Your task to perform on an android device: What is the recent news? Image 0: 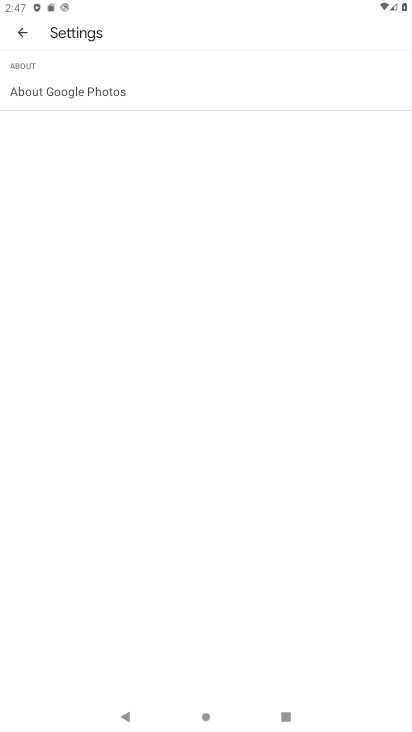
Step 0: press home button
Your task to perform on an android device: What is the recent news? Image 1: 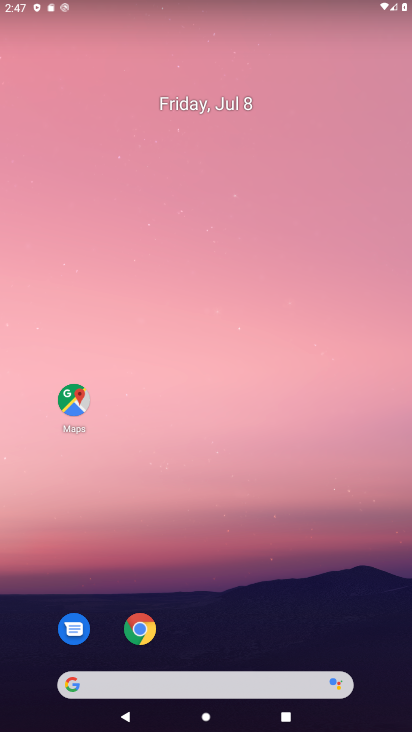
Step 1: click (135, 679)
Your task to perform on an android device: What is the recent news? Image 2: 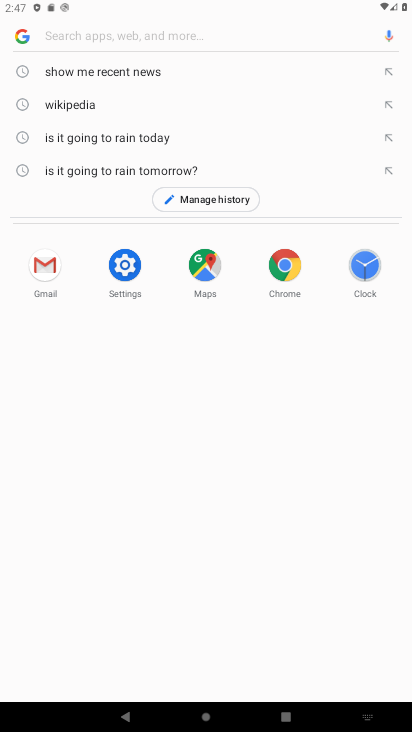
Step 2: type "What is the recent news?"
Your task to perform on an android device: What is the recent news? Image 3: 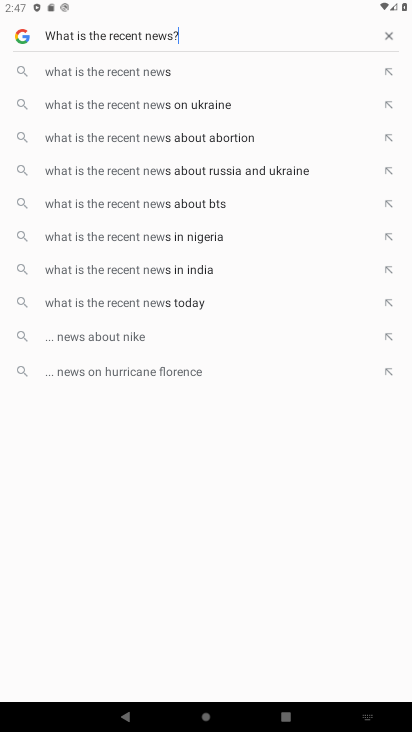
Step 3: type ""
Your task to perform on an android device: What is the recent news? Image 4: 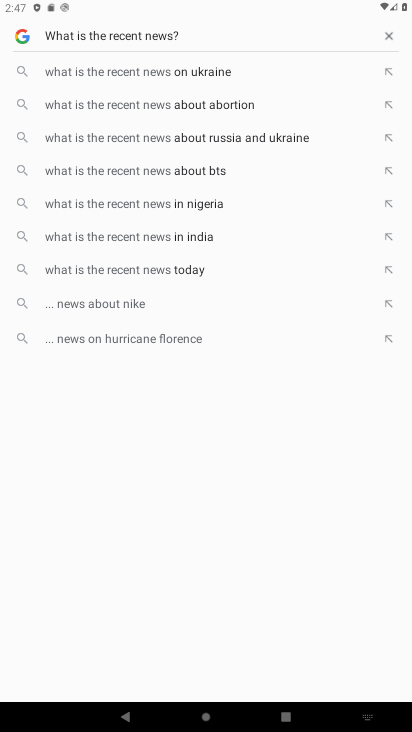
Step 4: type ""
Your task to perform on an android device: What is the recent news? Image 5: 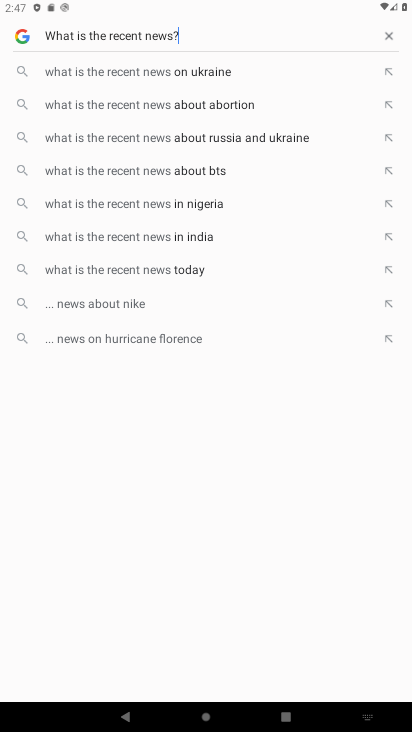
Step 5: type ""
Your task to perform on an android device: What is the recent news? Image 6: 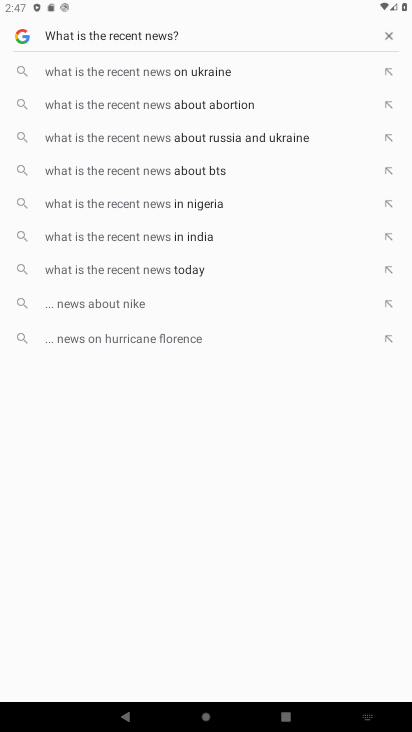
Step 6: type ""
Your task to perform on an android device: What is the recent news? Image 7: 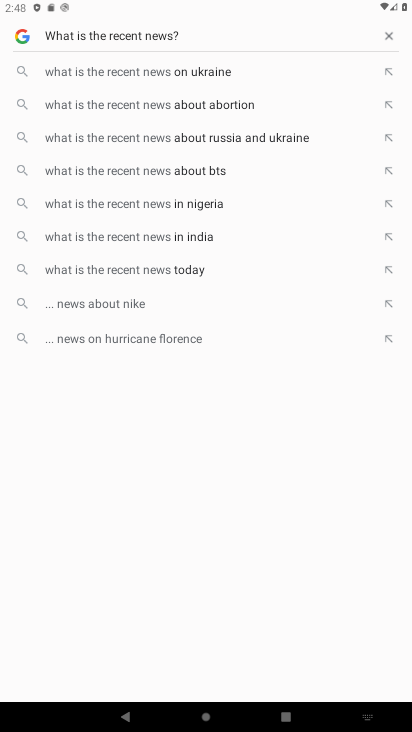
Step 7: task complete